Your task to perform on an android device: read, delete, or share a saved page in the chrome app Image 0: 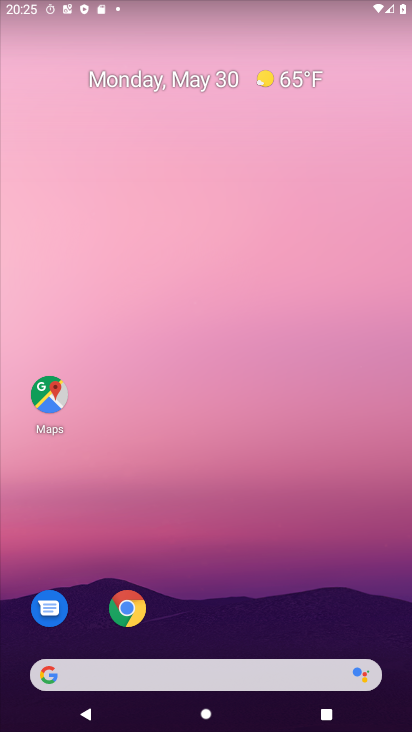
Step 0: click (133, 608)
Your task to perform on an android device: read, delete, or share a saved page in the chrome app Image 1: 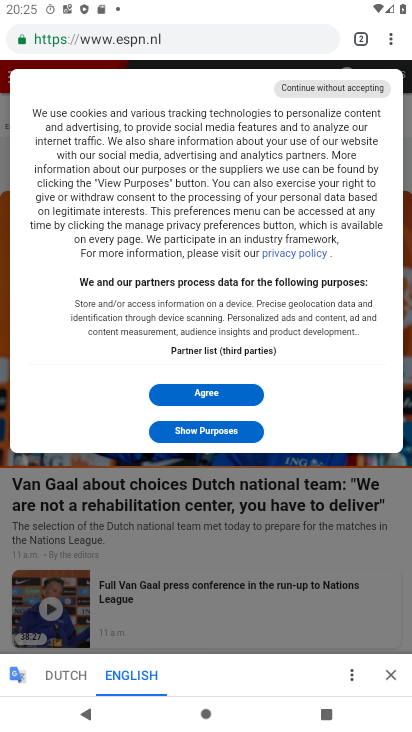
Step 1: click (388, 31)
Your task to perform on an android device: read, delete, or share a saved page in the chrome app Image 2: 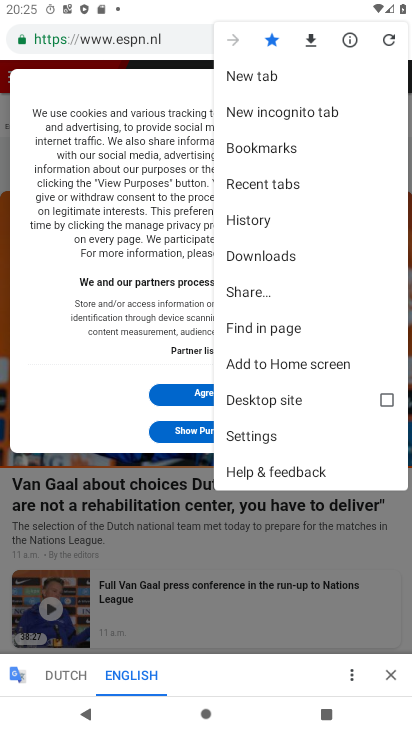
Step 2: click (271, 259)
Your task to perform on an android device: read, delete, or share a saved page in the chrome app Image 3: 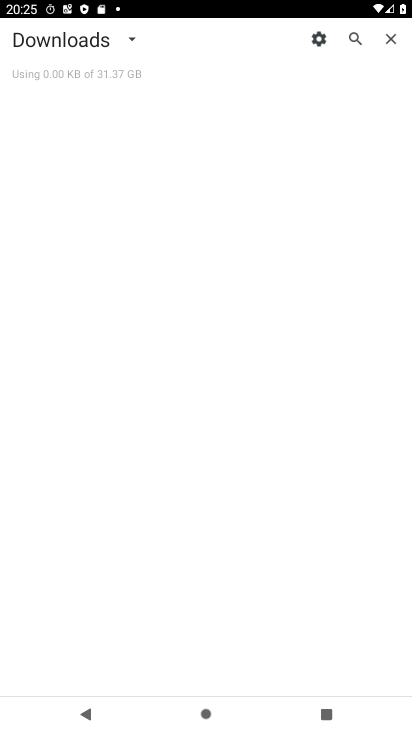
Step 3: click (109, 42)
Your task to perform on an android device: read, delete, or share a saved page in the chrome app Image 4: 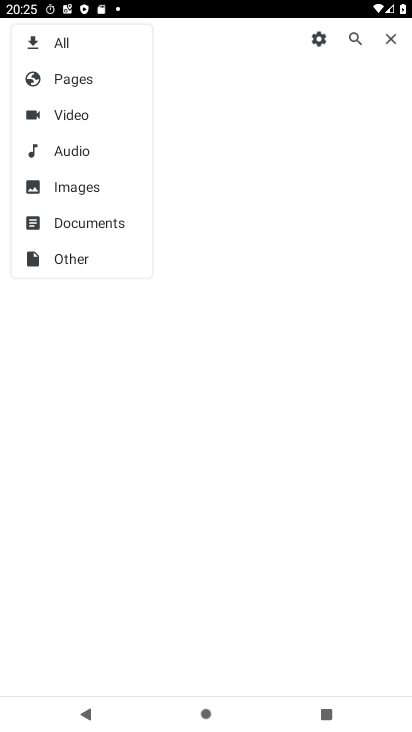
Step 4: click (79, 75)
Your task to perform on an android device: read, delete, or share a saved page in the chrome app Image 5: 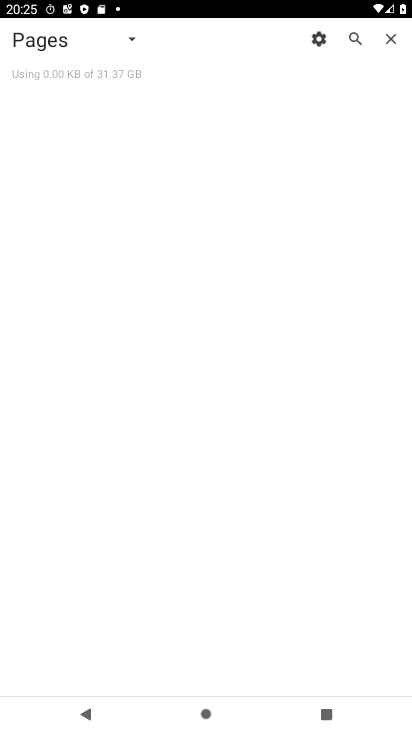
Step 5: task complete